Your task to perform on an android device: Open Wikipedia Image 0: 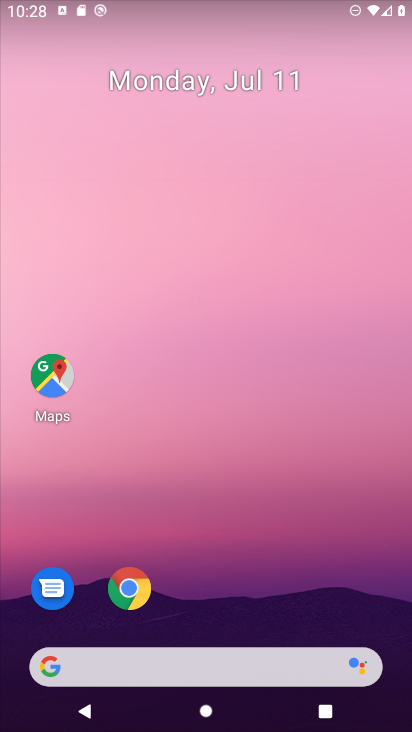
Step 0: drag from (394, 652) to (133, 62)
Your task to perform on an android device: Open Wikipedia Image 1: 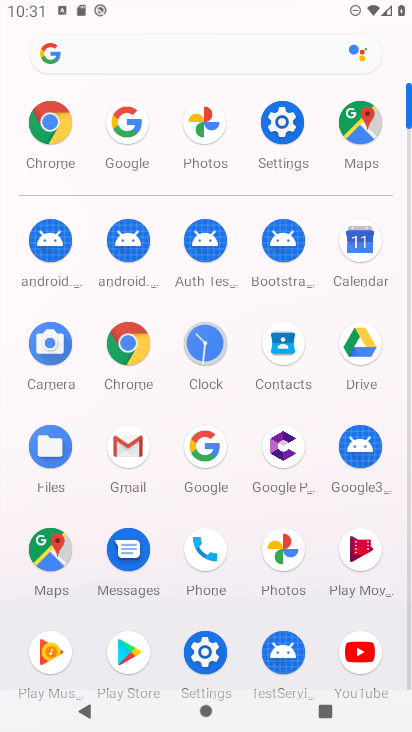
Step 1: click (194, 437)
Your task to perform on an android device: Open Wikipedia Image 2: 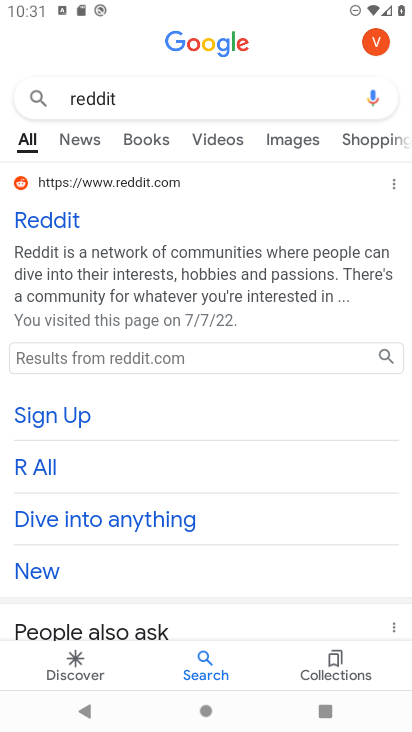
Step 2: press back button
Your task to perform on an android device: Open Wikipedia Image 3: 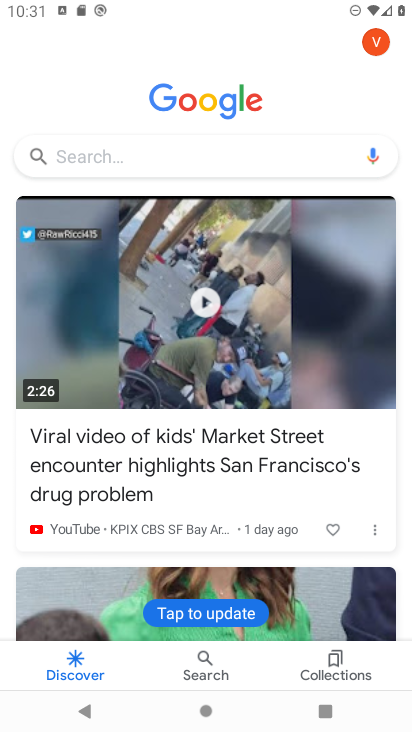
Step 3: click (99, 162)
Your task to perform on an android device: Open Wikipedia Image 4: 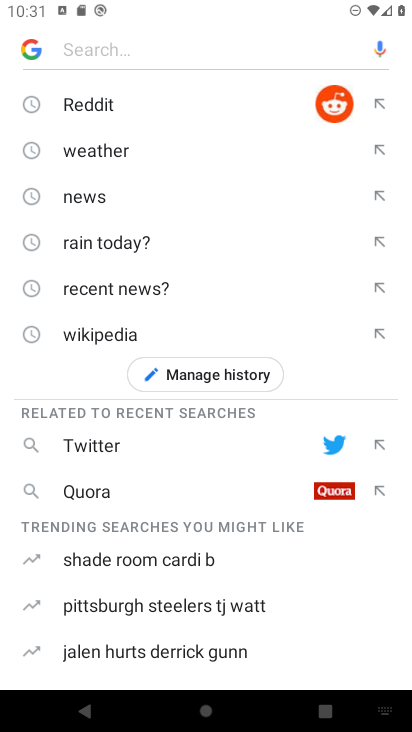
Step 4: click (125, 336)
Your task to perform on an android device: Open Wikipedia Image 5: 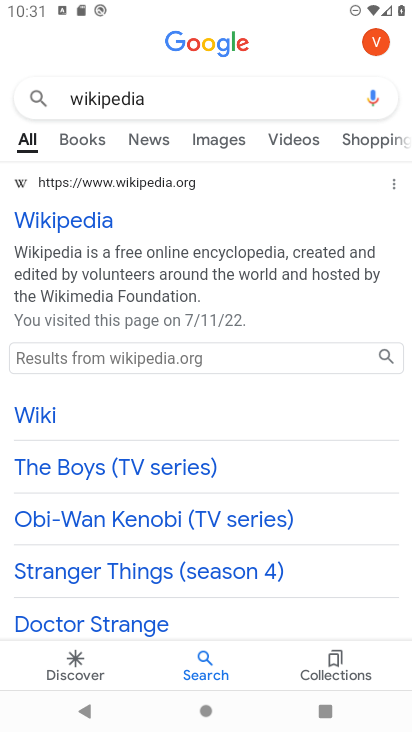
Step 5: task complete